Your task to perform on an android device: delete the emails in spam in the gmail app Image 0: 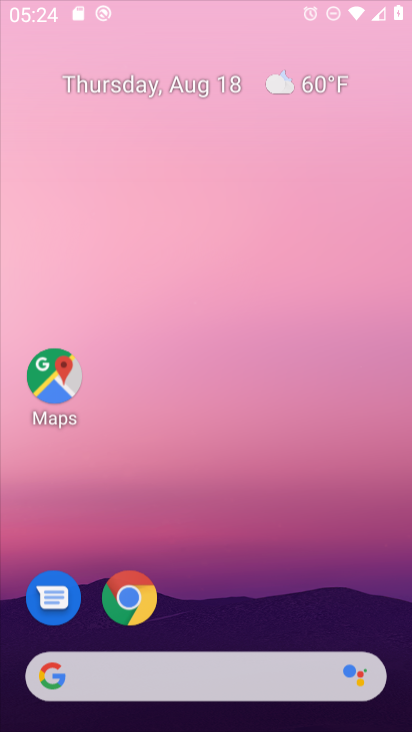
Step 0: press home button
Your task to perform on an android device: delete the emails in spam in the gmail app Image 1: 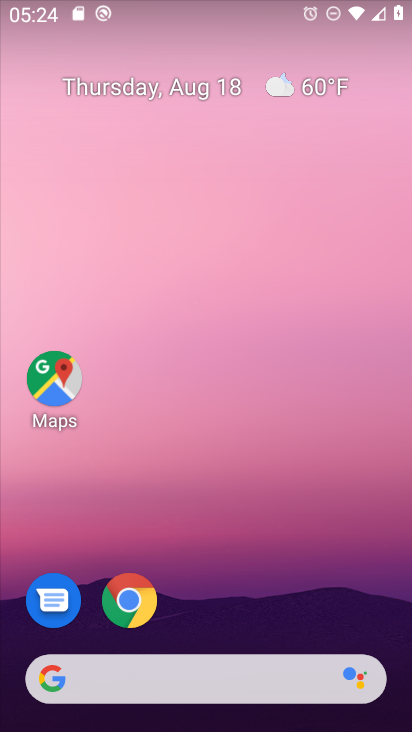
Step 1: drag from (192, 635) to (200, 17)
Your task to perform on an android device: delete the emails in spam in the gmail app Image 2: 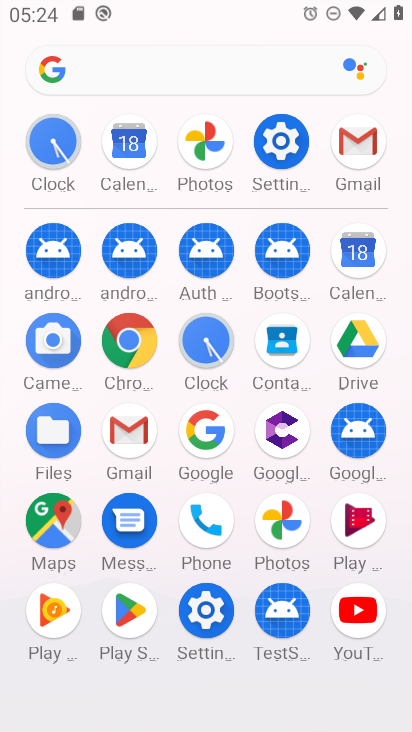
Step 2: click (368, 162)
Your task to perform on an android device: delete the emails in spam in the gmail app Image 3: 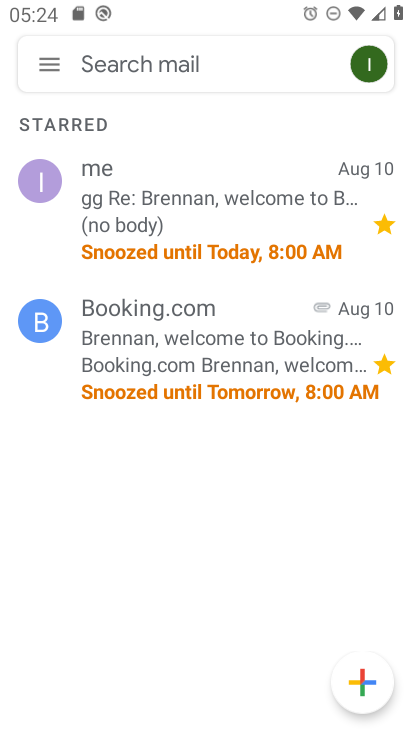
Step 3: click (47, 74)
Your task to perform on an android device: delete the emails in spam in the gmail app Image 4: 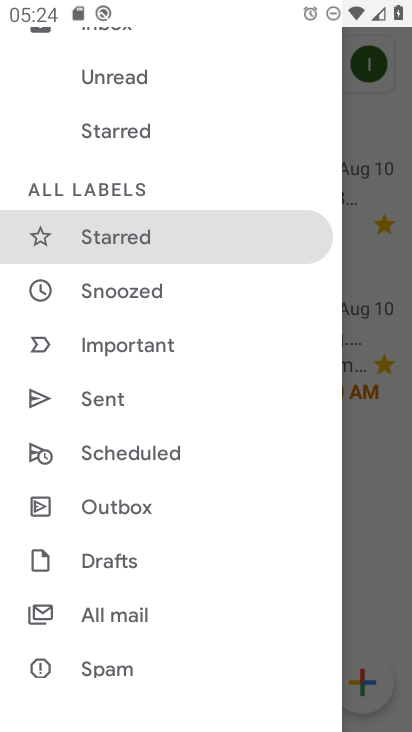
Step 4: click (111, 669)
Your task to perform on an android device: delete the emails in spam in the gmail app Image 5: 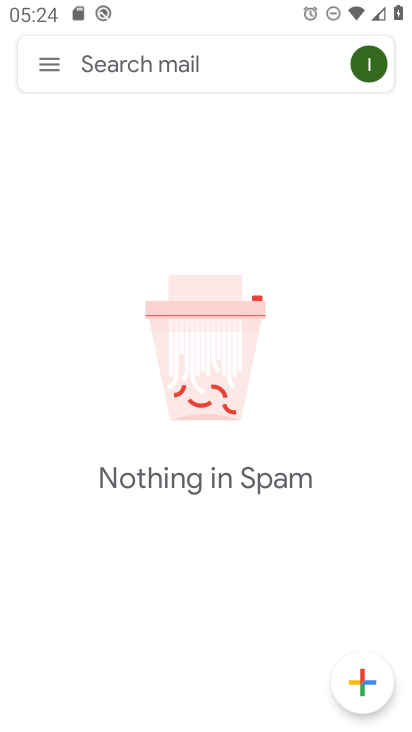
Step 5: task complete